Your task to perform on an android device: see tabs open on other devices in the chrome app Image 0: 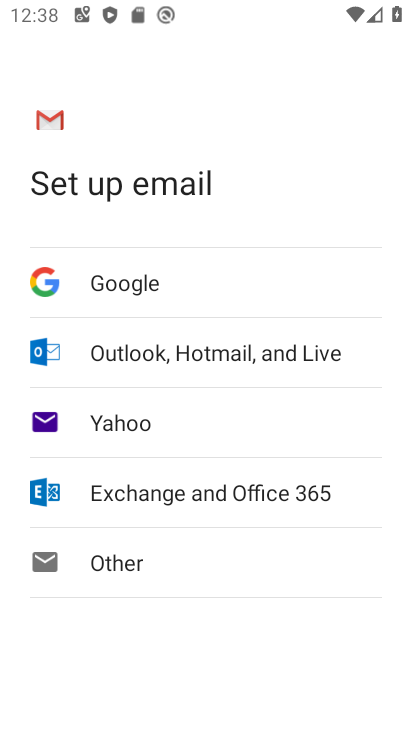
Step 0: press home button
Your task to perform on an android device: see tabs open on other devices in the chrome app Image 1: 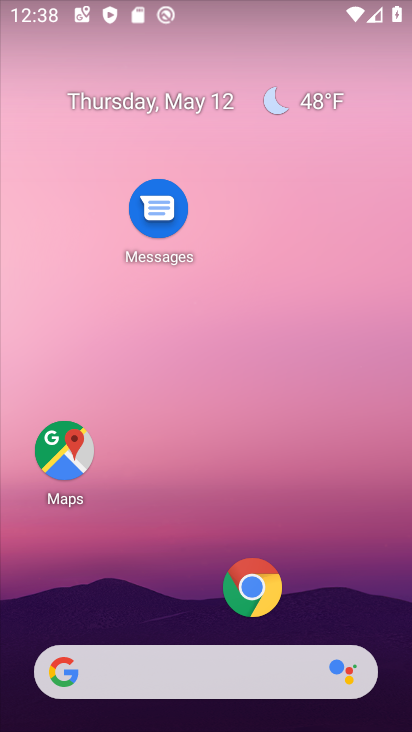
Step 1: click (263, 586)
Your task to perform on an android device: see tabs open on other devices in the chrome app Image 2: 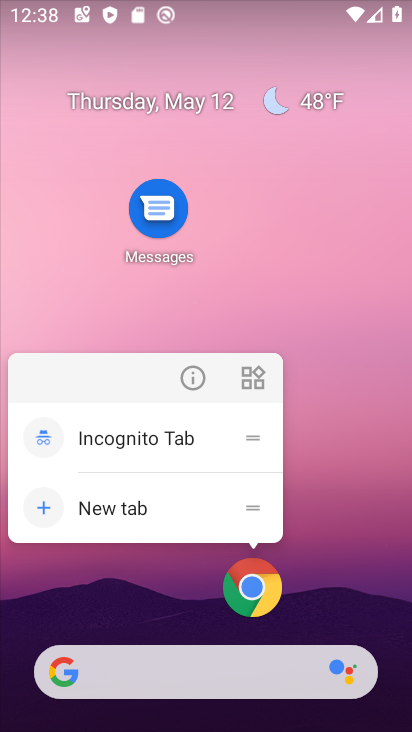
Step 2: click (252, 589)
Your task to perform on an android device: see tabs open on other devices in the chrome app Image 3: 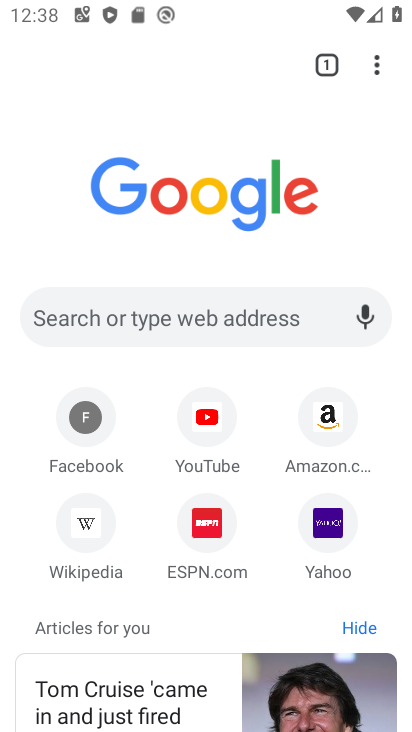
Step 3: click (321, 69)
Your task to perform on an android device: see tabs open on other devices in the chrome app Image 4: 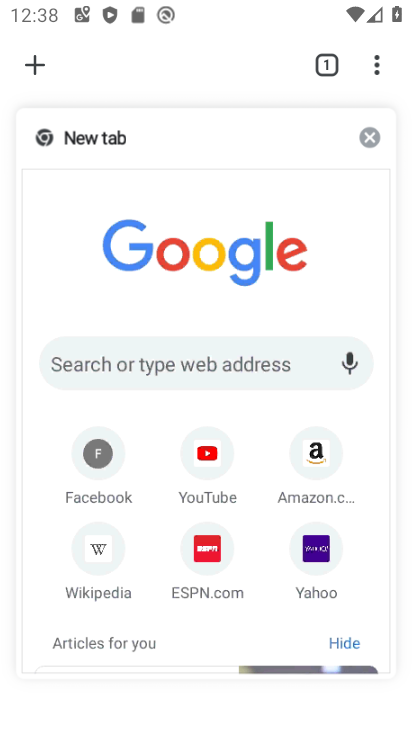
Step 4: task complete